Your task to perform on an android device: Search for Italian restaurants on Maps Image 0: 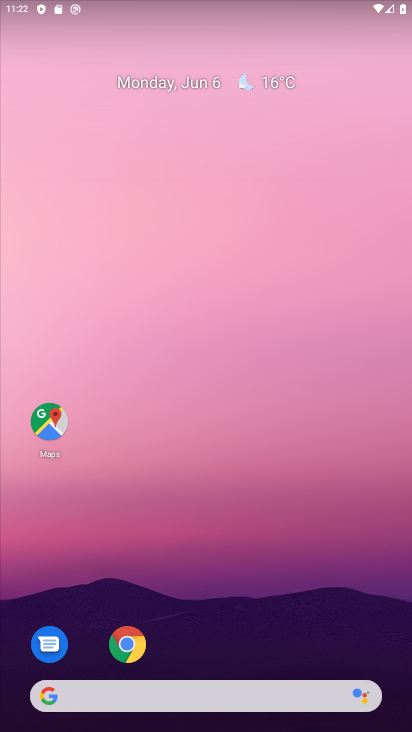
Step 0: drag from (229, 562) to (166, 22)
Your task to perform on an android device: Search for Italian restaurants on Maps Image 1: 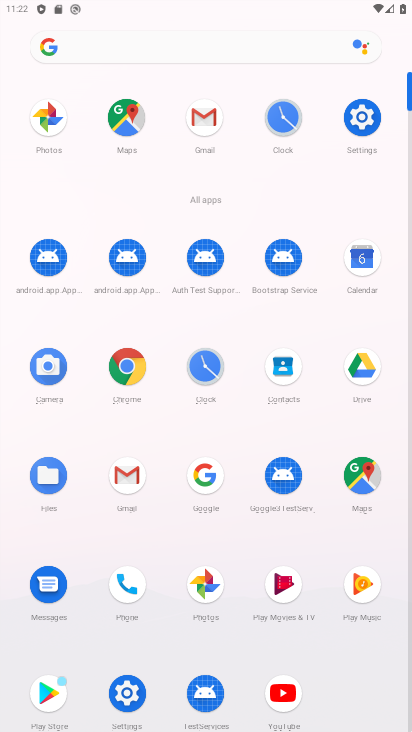
Step 1: click (355, 469)
Your task to perform on an android device: Search for Italian restaurants on Maps Image 2: 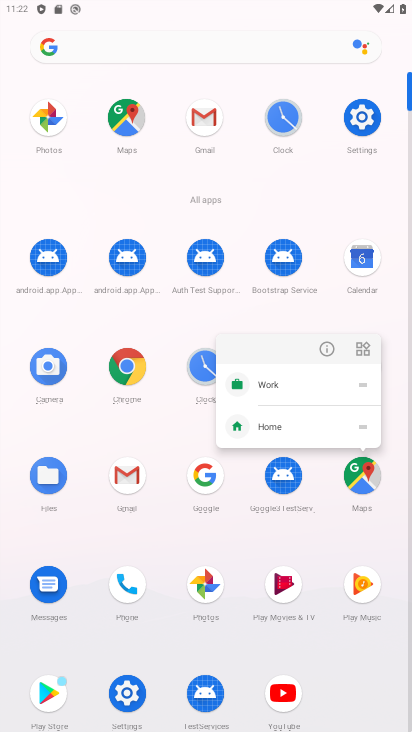
Step 2: click (354, 469)
Your task to perform on an android device: Search for Italian restaurants on Maps Image 3: 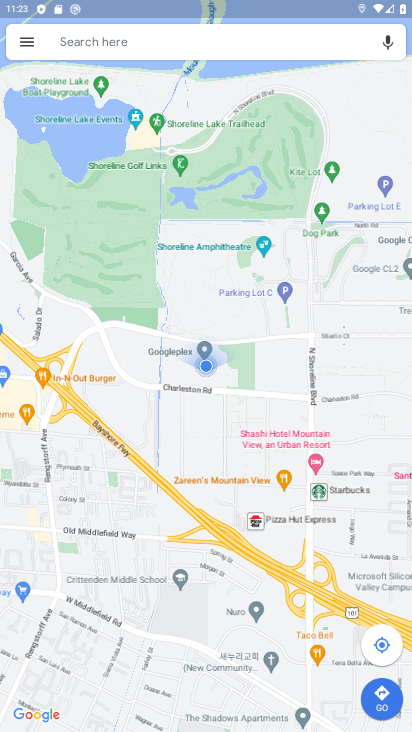
Step 3: click (206, 39)
Your task to perform on an android device: Search for Italian restaurants on Maps Image 4: 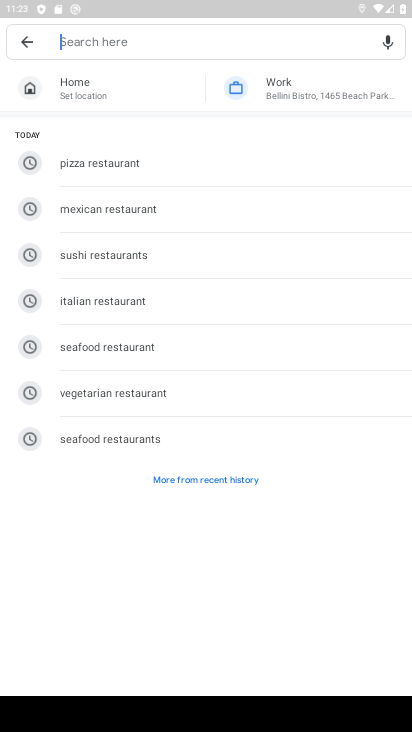
Step 4: click (98, 312)
Your task to perform on an android device: Search for Italian restaurants on Maps Image 5: 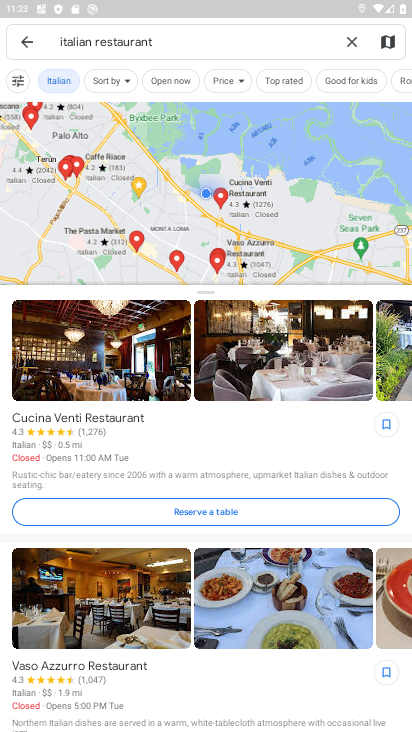
Step 5: task complete